Your task to perform on an android device: open app "Facebook Messenger" (install if not already installed) and go to login screen Image 0: 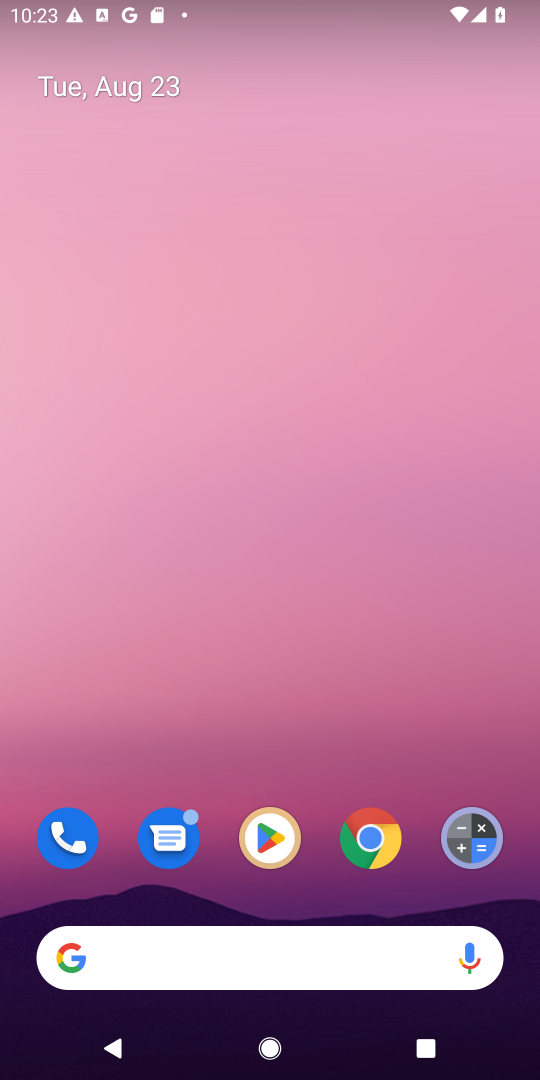
Step 0: click (285, 818)
Your task to perform on an android device: open app "Facebook Messenger" (install if not already installed) and go to login screen Image 1: 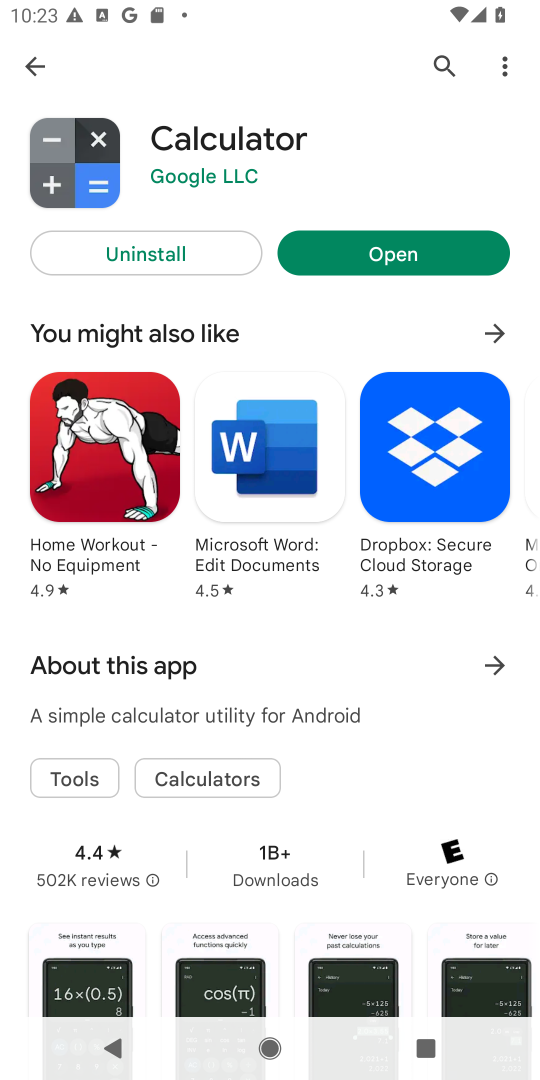
Step 1: click (442, 74)
Your task to perform on an android device: open app "Facebook Messenger" (install if not already installed) and go to login screen Image 2: 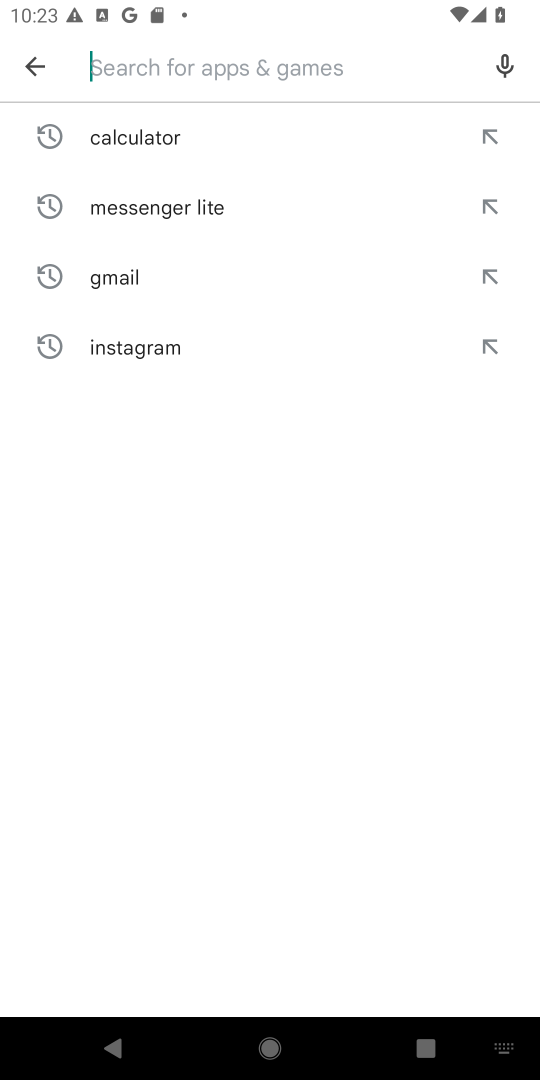
Step 2: type "Facebook Messenge"
Your task to perform on an android device: open app "Facebook Messenger" (install if not already installed) and go to login screen Image 3: 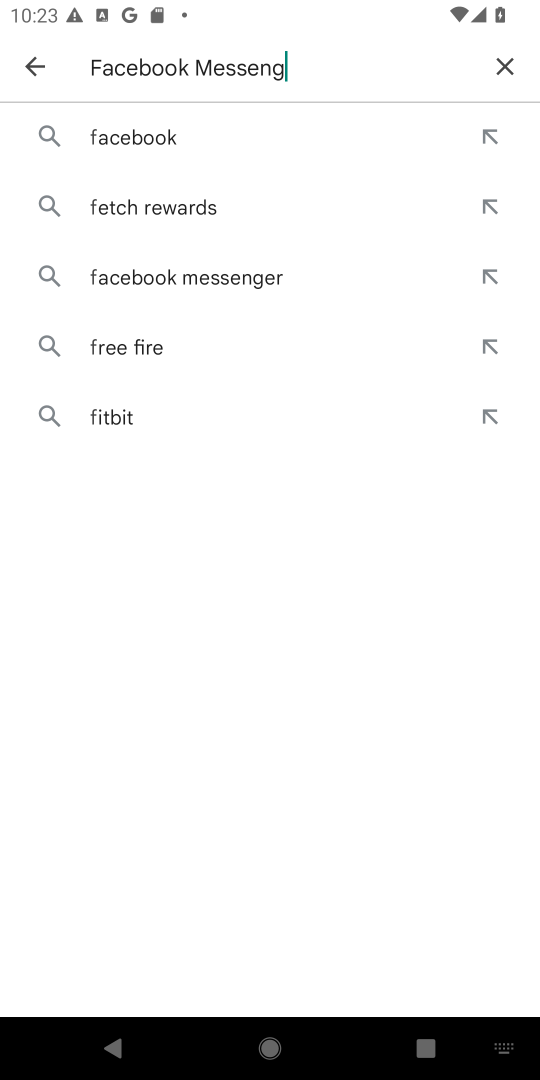
Step 3: type ""
Your task to perform on an android device: open app "Facebook Messenger" (install if not already installed) and go to login screen Image 4: 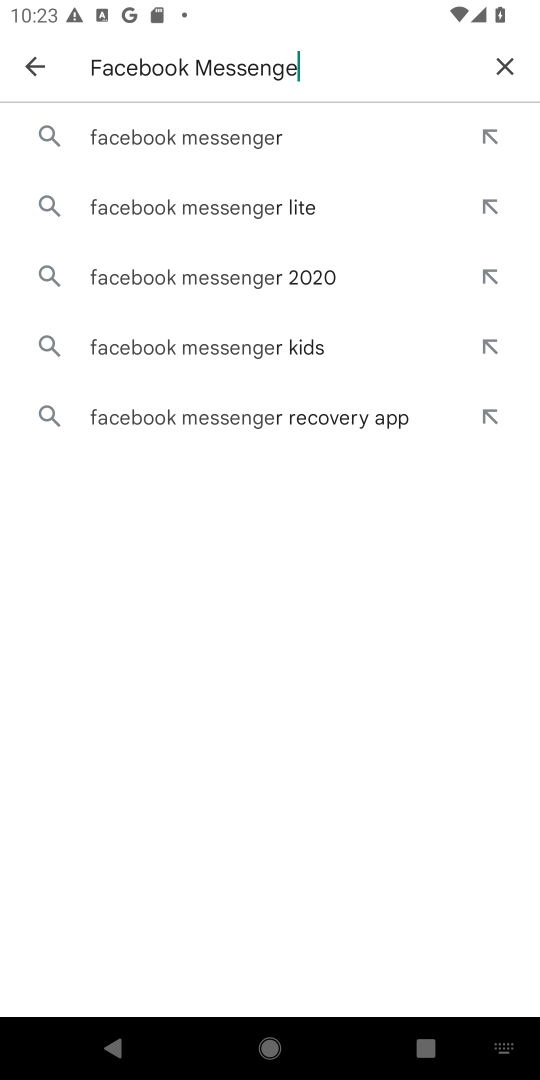
Step 4: click (354, 138)
Your task to perform on an android device: open app "Facebook Messenger" (install if not already installed) and go to login screen Image 5: 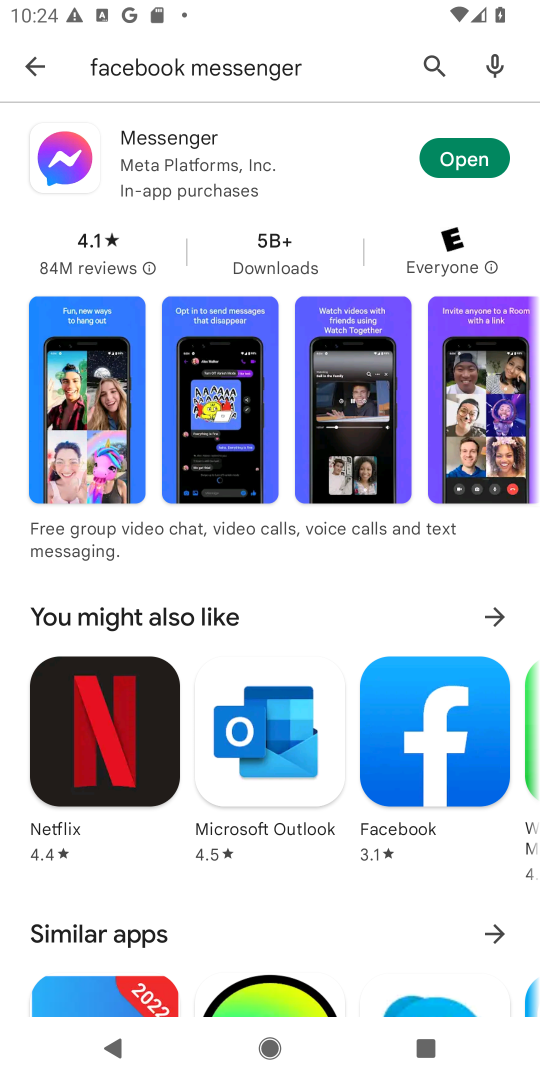
Step 5: click (474, 154)
Your task to perform on an android device: open app "Facebook Messenger" (install if not already installed) and go to login screen Image 6: 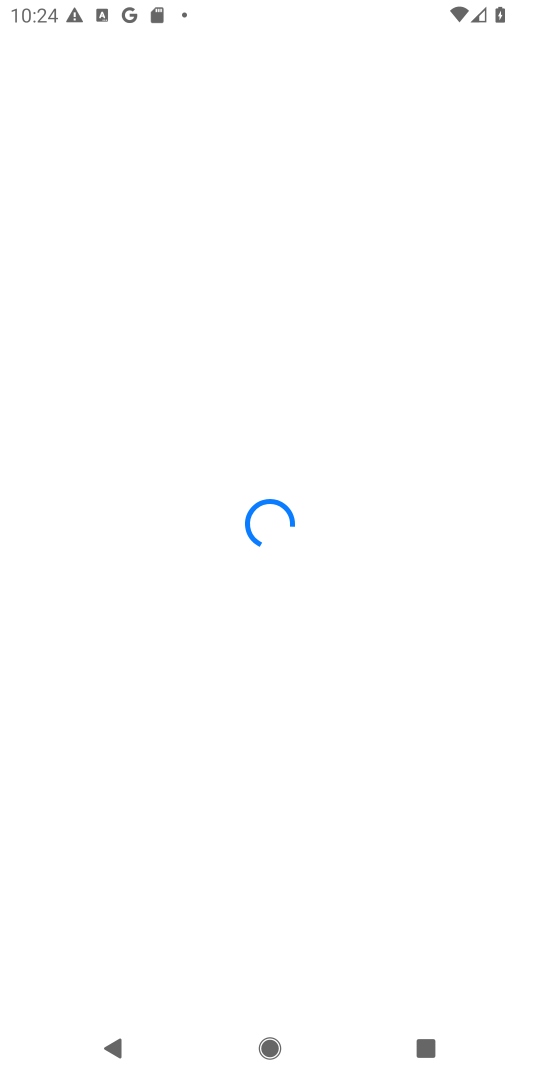
Step 6: task complete